Your task to perform on an android device: see sites visited before in the chrome app Image 0: 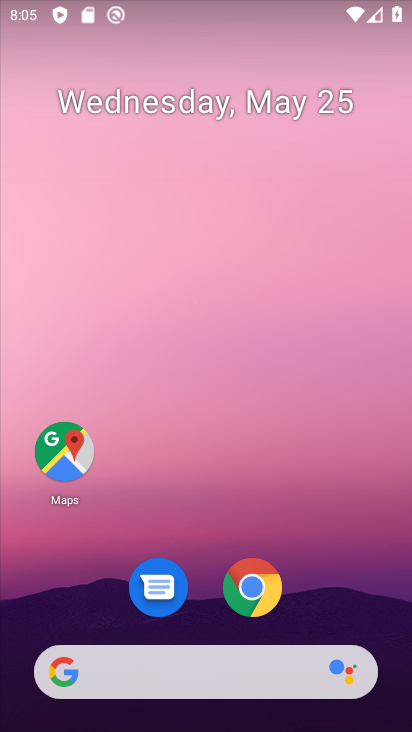
Step 0: click (249, 585)
Your task to perform on an android device: see sites visited before in the chrome app Image 1: 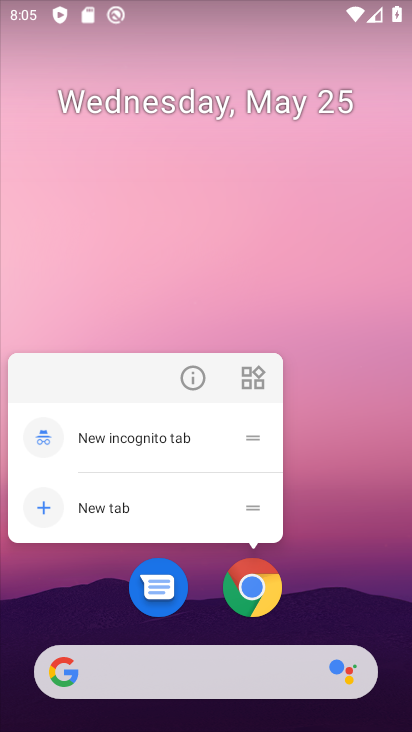
Step 1: click (324, 509)
Your task to perform on an android device: see sites visited before in the chrome app Image 2: 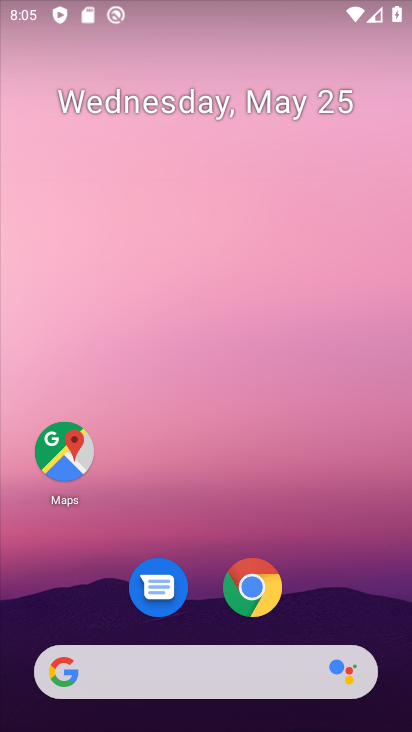
Step 2: drag from (355, 556) to (364, 57)
Your task to perform on an android device: see sites visited before in the chrome app Image 3: 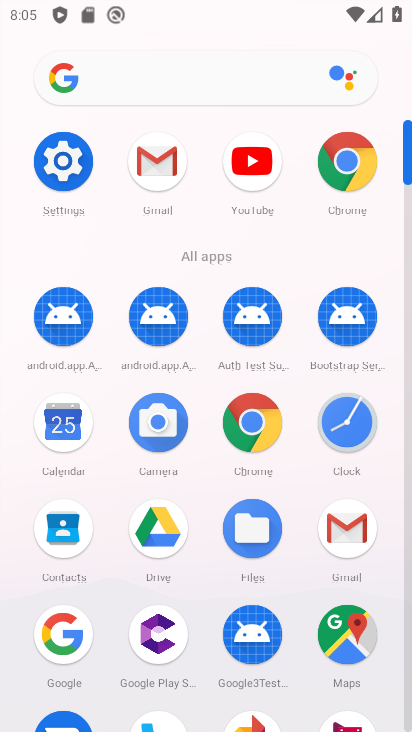
Step 3: click (346, 153)
Your task to perform on an android device: see sites visited before in the chrome app Image 4: 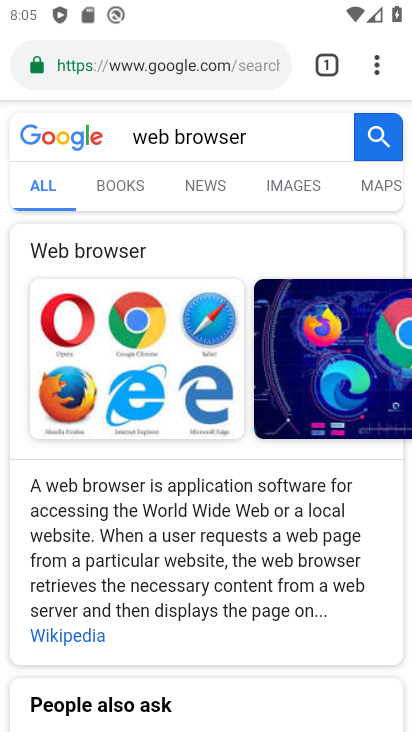
Step 4: click (376, 55)
Your task to perform on an android device: see sites visited before in the chrome app Image 5: 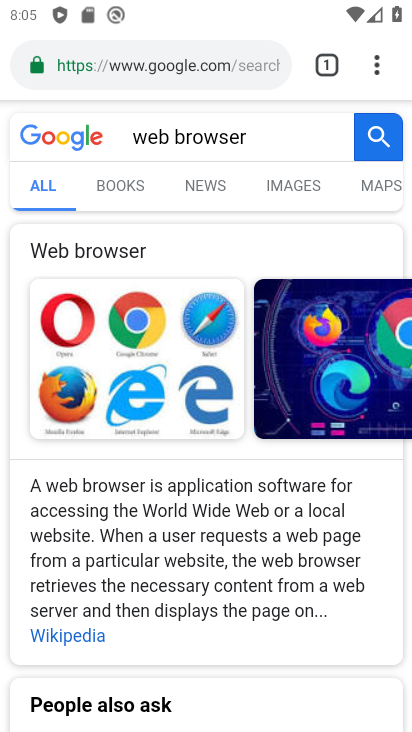
Step 5: click (256, 123)
Your task to perform on an android device: see sites visited before in the chrome app Image 6: 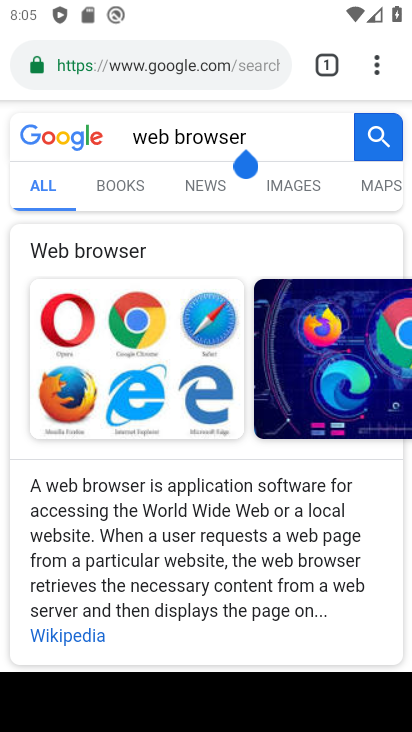
Step 6: click (215, 60)
Your task to perform on an android device: see sites visited before in the chrome app Image 7: 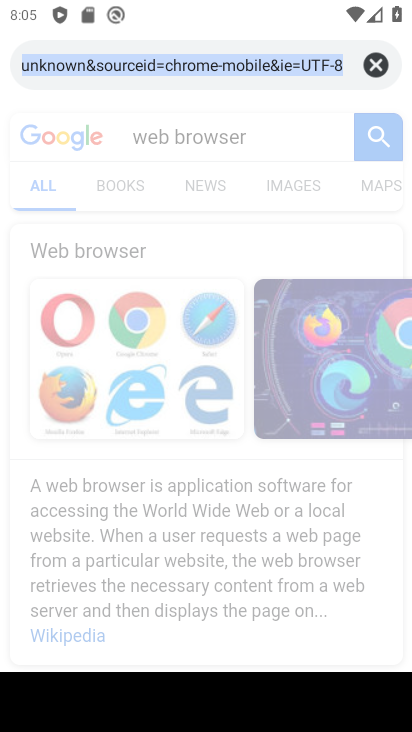
Step 7: click (377, 60)
Your task to perform on an android device: see sites visited before in the chrome app Image 8: 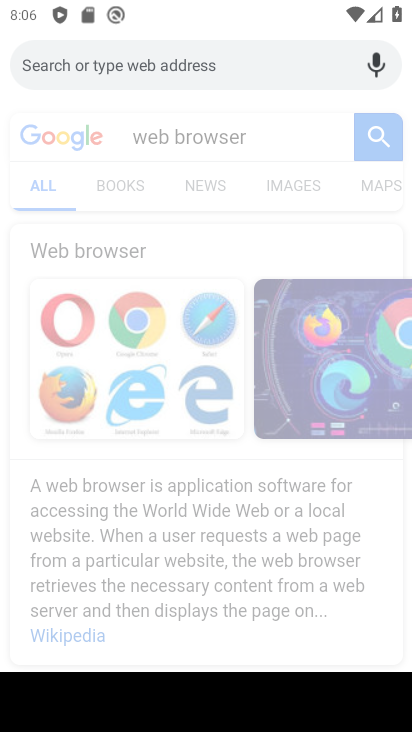
Step 8: press home button
Your task to perform on an android device: see sites visited before in the chrome app Image 9: 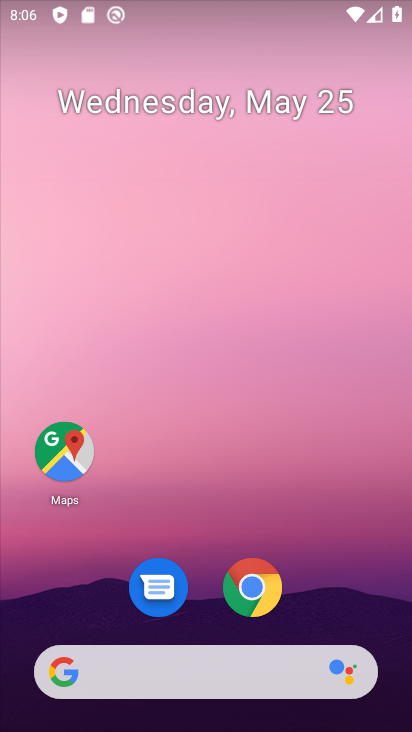
Step 9: click (254, 580)
Your task to perform on an android device: see sites visited before in the chrome app Image 10: 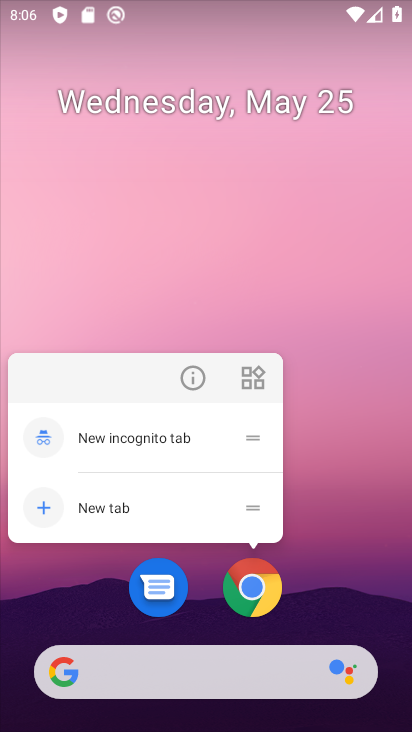
Step 10: click (250, 587)
Your task to perform on an android device: see sites visited before in the chrome app Image 11: 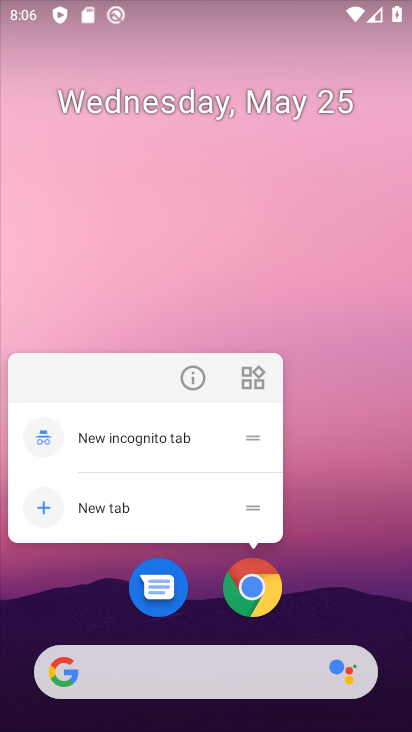
Step 11: click (250, 587)
Your task to perform on an android device: see sites visited before in the chrome app Image 12: 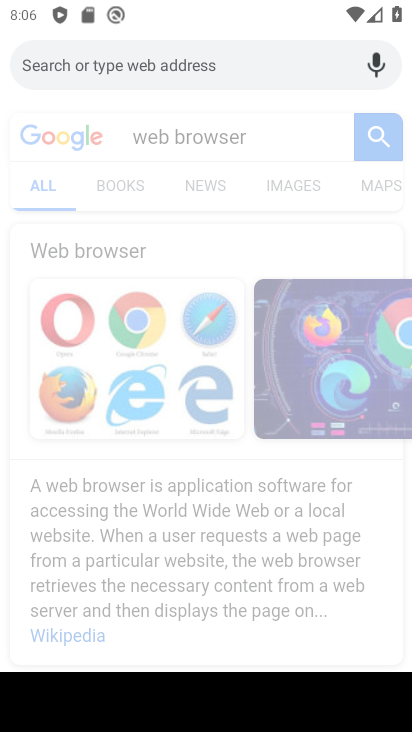
Step 12: press back button
Your task to perform on an android device: see sites visited before in the chrome app Image 13: 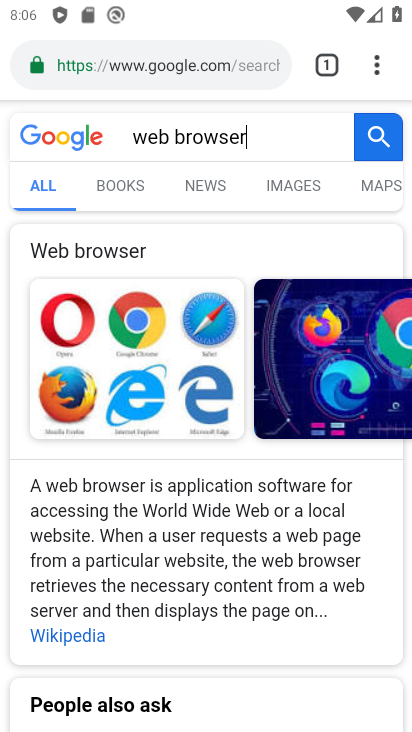
Step 13: drag from (378, 65) to (132, 366)
Your task to perform on an android device: see sites visited before in the chrome app Image 14: 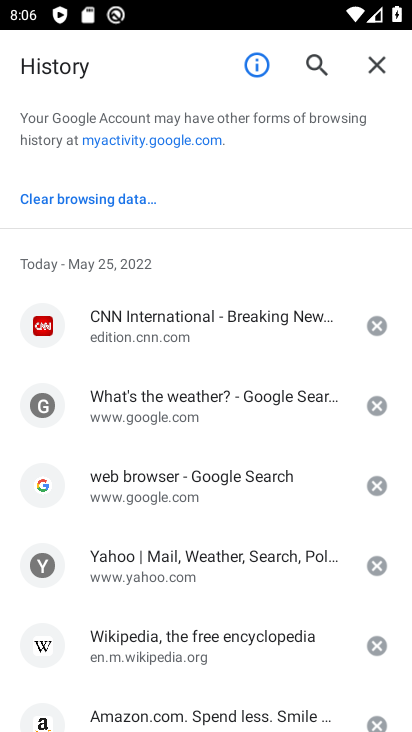
Step 14: click (138, 321)
Your task to perform on an android device: see sites visited before in the chrome app Image 15: 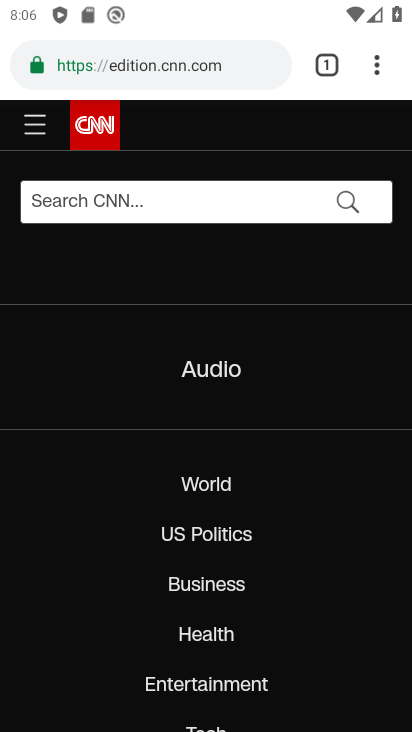
Step 15: task complete